Your task to perform on an android device: open a new tab in the chrome app Image 0: 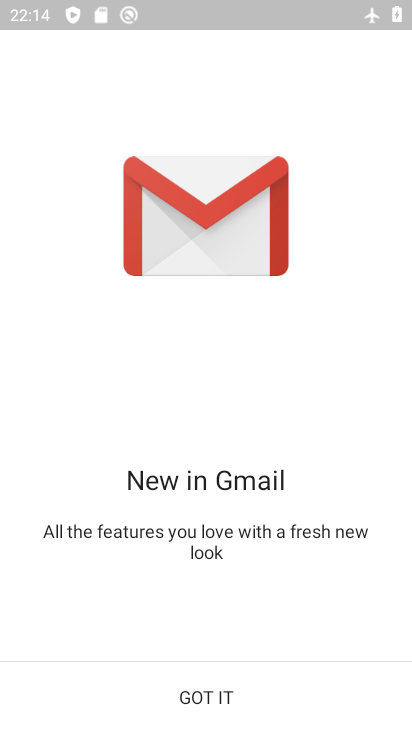
Step 0: press home button
Your task to perform on an android device: open a new tab in the chrome app Image 1: 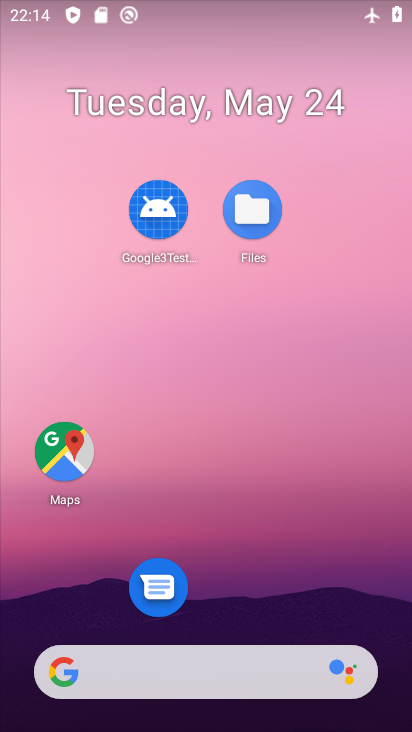
Step 1: drag from (216, 627) to (140, 90)
Your task to perform on an android device: open a new tab in the chrome app Image 2: 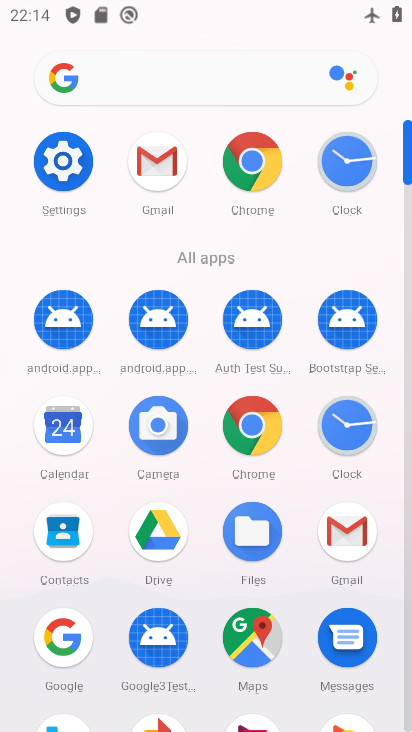
Step 2: click (273, 437)
Your task to perform on an android device: open a new tab in the chrome app Image 3: 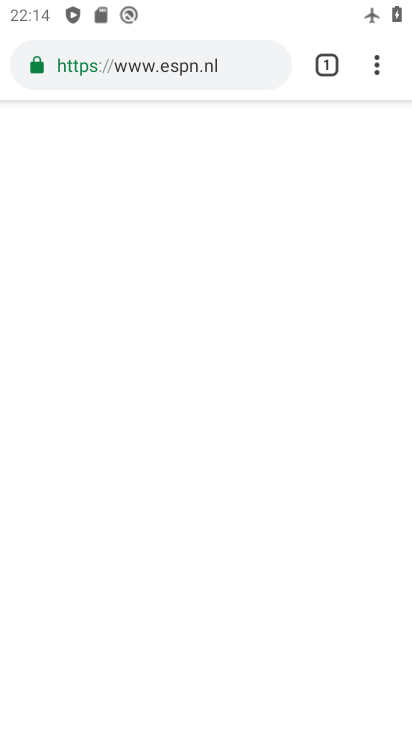
Step 3: click (381, 67)
Your task to perform on an android device: open a new tab in the chrome app Image 4: 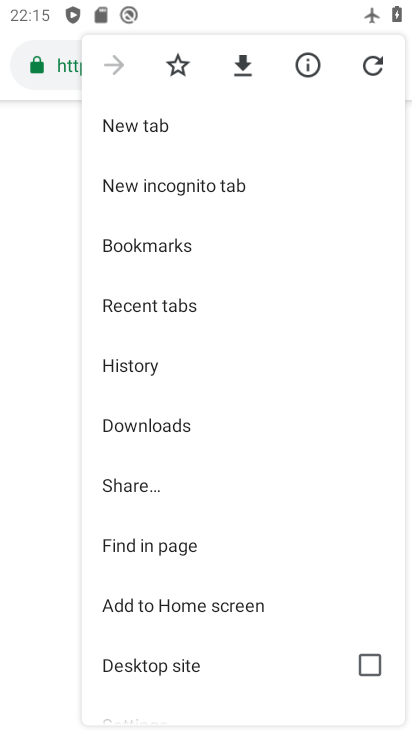
Step 4: click (148, 125)
Your task to perform on an android device: open a new tab in the chrome app Image 5: 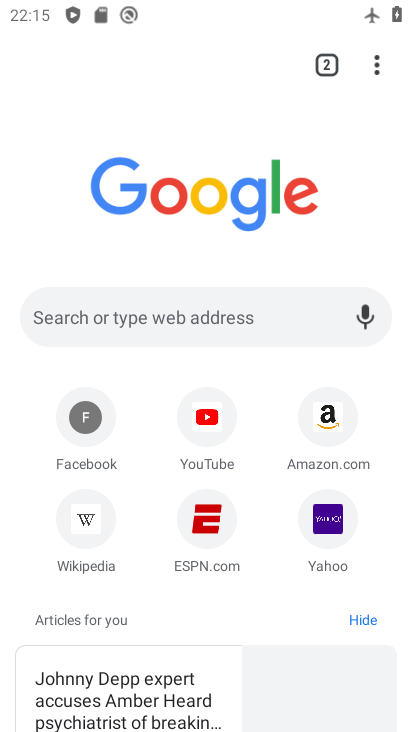
Step 5: task complete